Your task to perform on an android device: Open my contact list Image 0: 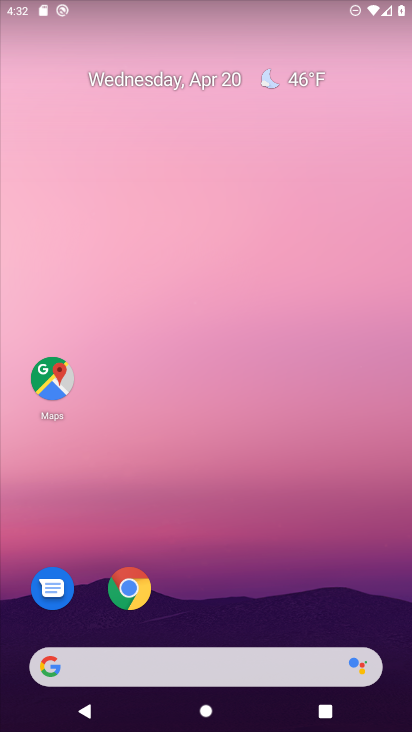
Step 0: drag from (218, 709) to (223, 65)
Your task to perform on an android device: Open my contact list Image 1: 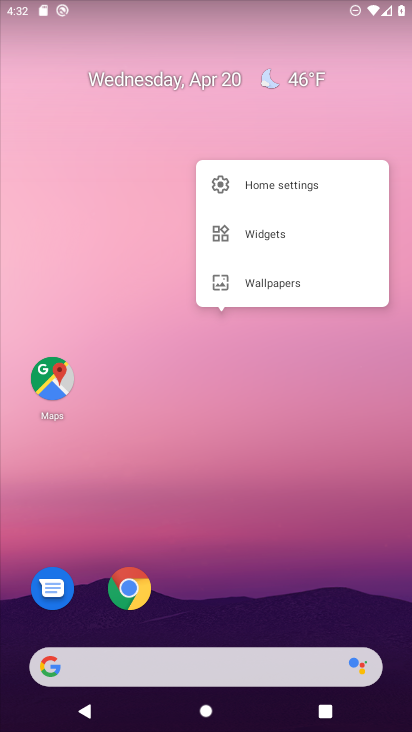
Step 1: click (239, 375)
Your task to perform on an android device: Open my contact list Image 2: 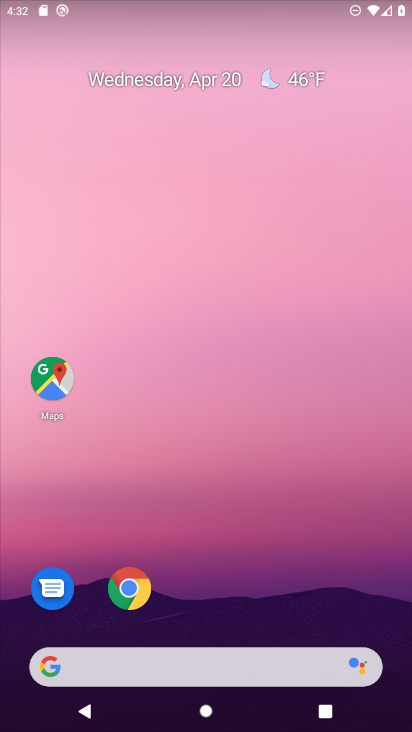
Step 2: drag from (209, 676) to (209, 165)
Your task to perform on an android device: Open my contact list Image 3: 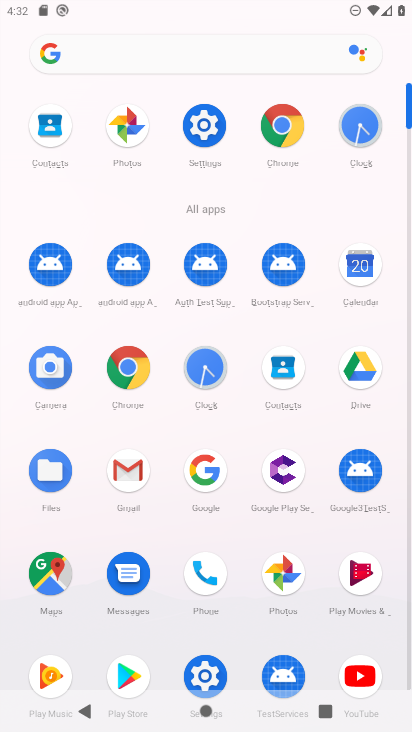
Step 3: click (281, 368)
Your task to perform on an android device: Open my contact list Image 4: 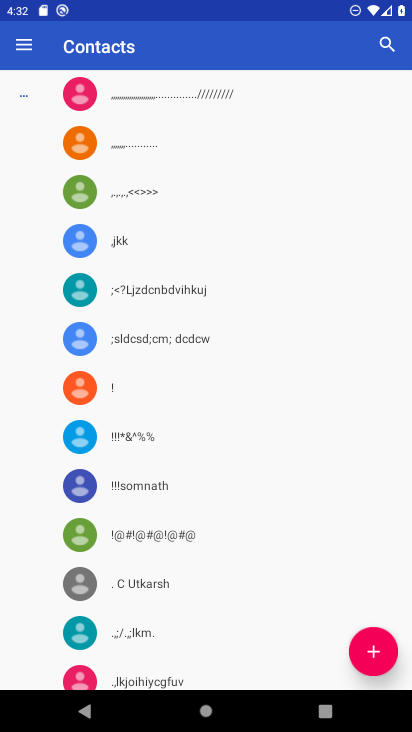
Step 4: task complete